Your task to perform on an android device: turn off data saver in the chrome app Image 0: 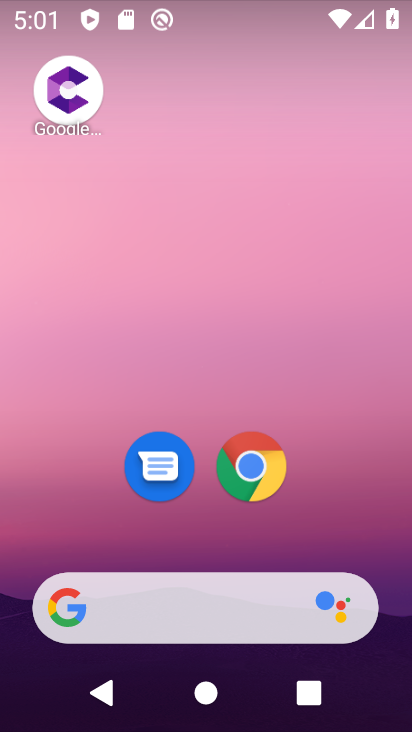
Step 0: click (251, 465)
Your task to perform on an android device: turn off data saver in the chrome app Image 1: 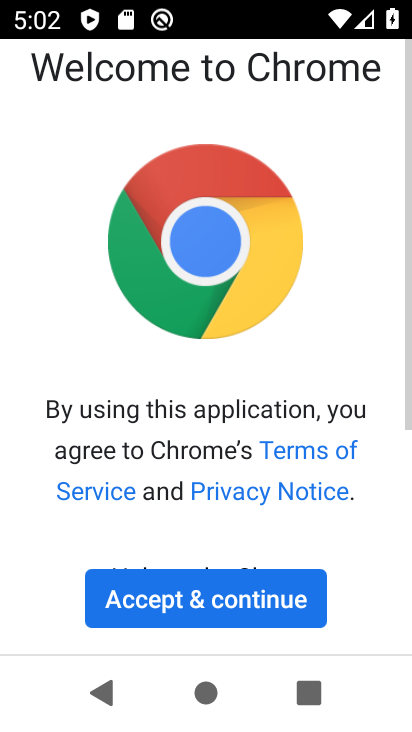
Step 1: click (218, 603)
Your task to perform on an android device: turn off data saver in the chrome app Image 2: 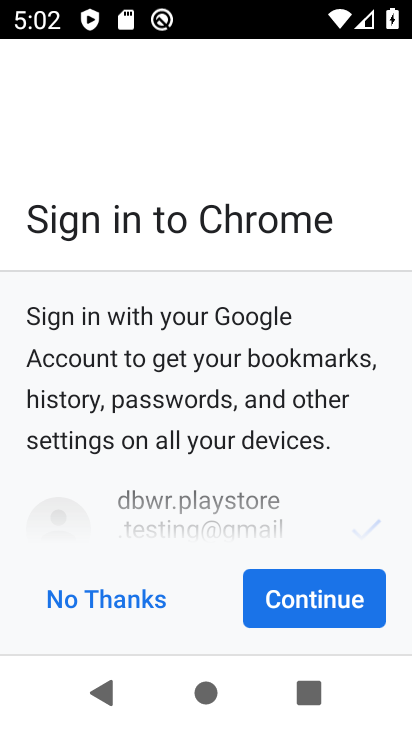
Step 2: click (298, 609)
Your task to perform on an android device: turn off data saver in the chrome app Image 3: 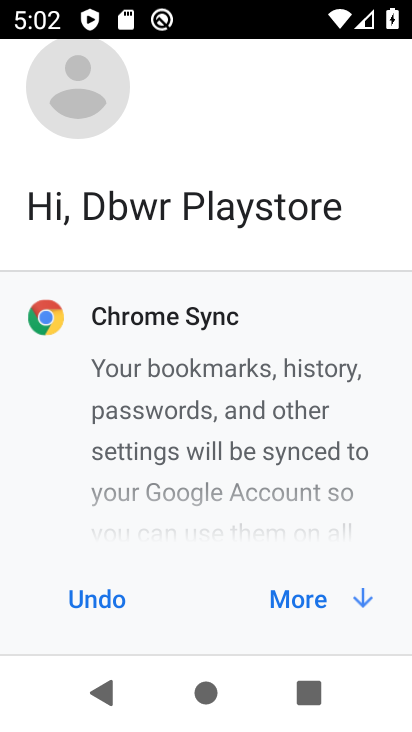
Step 3: click (312, 598)
Your task to perform on an android device: turn off data saver in the chrome app Image 4: 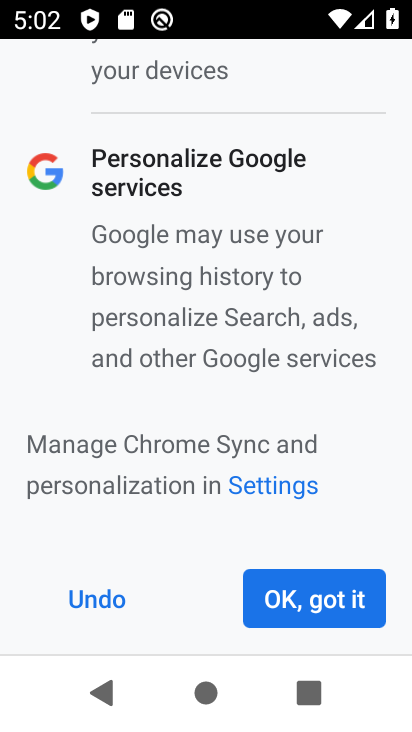
Step 4: click (312, 598)
Your task to perform on an android device: turn off data saver in the chrome app Image 5: 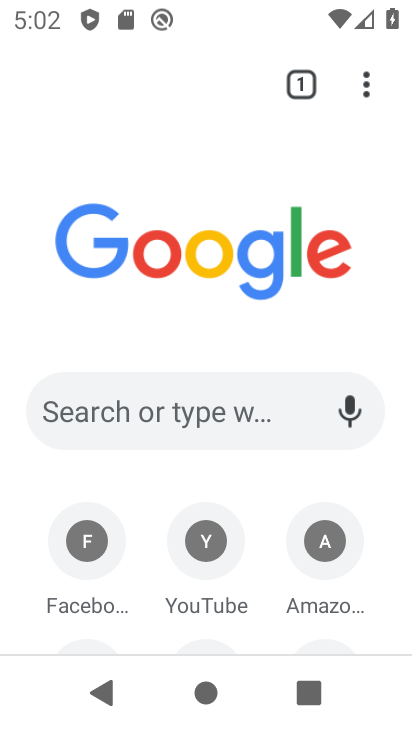
Step 5: click (183, 402)
Your task to perform on an android device: turn off data saver in the chrome app Image 6: 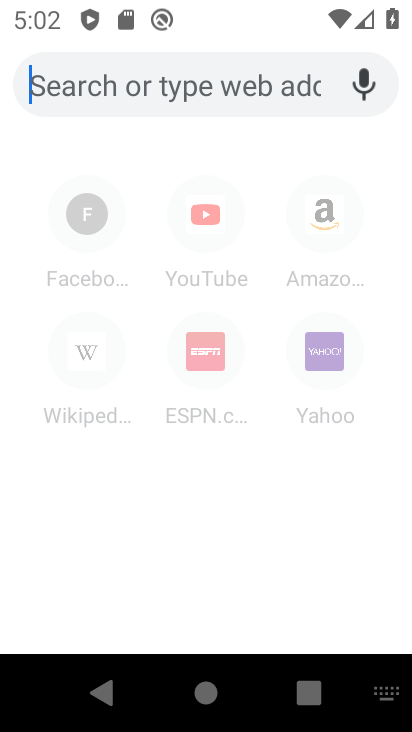
Step 6: press back button
Your task to perform on an android device: turn off data saver in the chrome app Image 7: 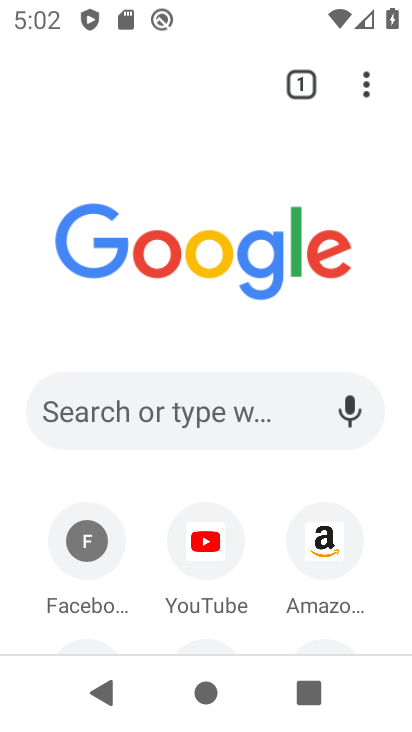
Step 7: click (370, 91)
Your task to perform on an android device: turn off data saver in the chrome app Image 8: 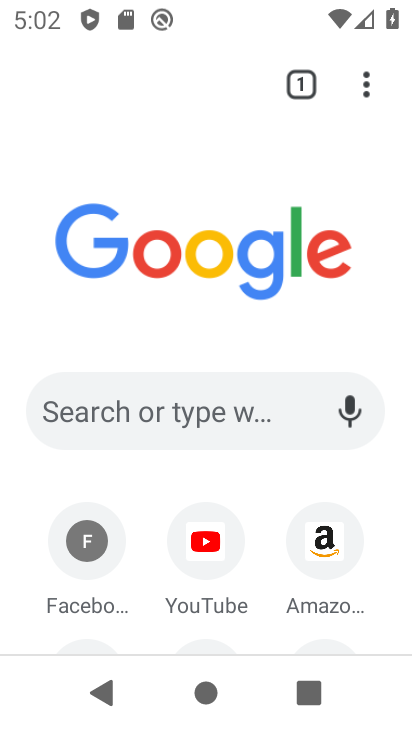
Step 8: drag from (370, 91) to (106, 509)
Your task to perform on an android device: turn off data saver in the chrome app Image 9: 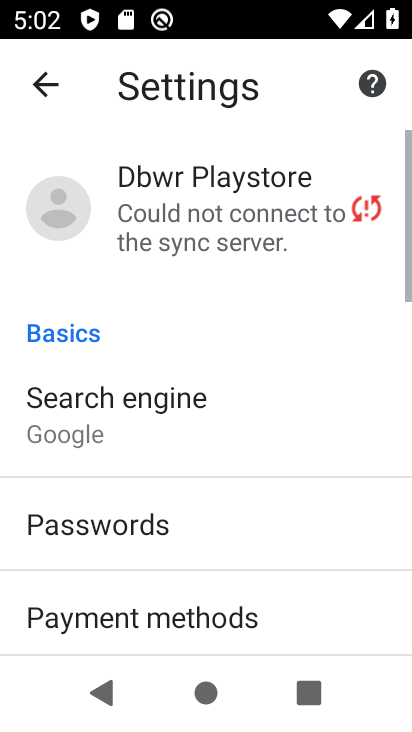
Step 9: drag from (222, 525) to (273, 238)
Your task to perform on an android device: turn off data saver in the chrome app Image 10: 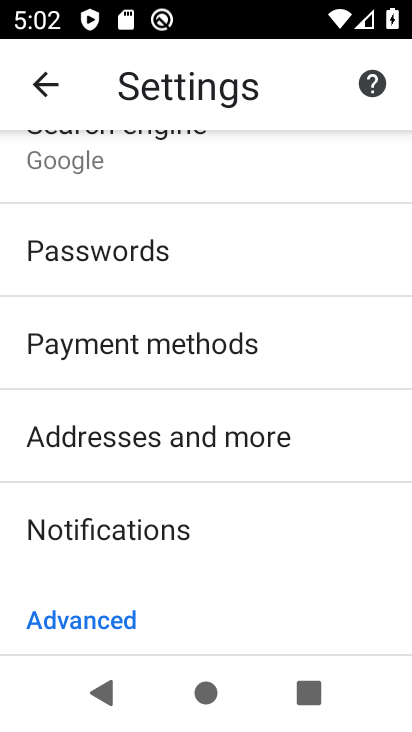
Step 10: drag from (266, 609) to (343, 223)
Your task to perform on an android device: turn off data saver in the chrome app Image 11: 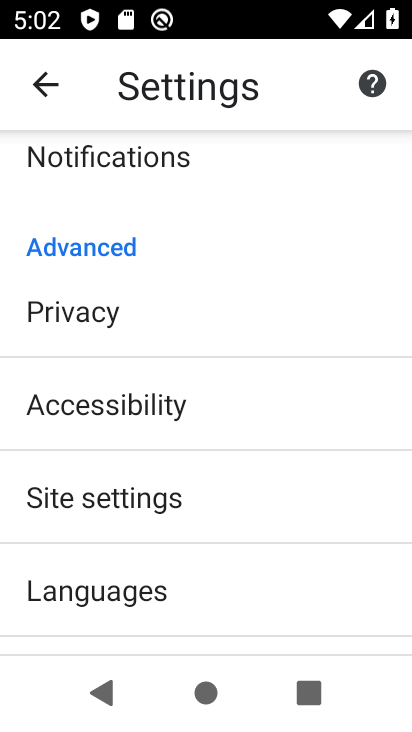
Step 11: drag from (202, 571) to (241, 266)
Your task to perform on an android device: turn off data saver in the chrome app Image 12: 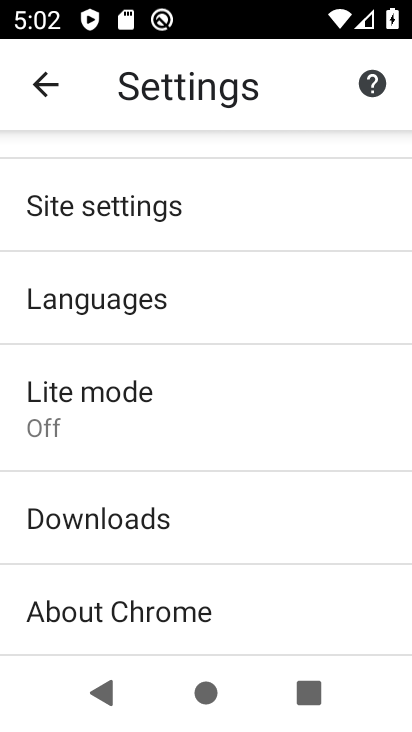
Step 12: click (91, 387)
Your task to perform on an android device: turn off data saver in the chrome app Image 13: 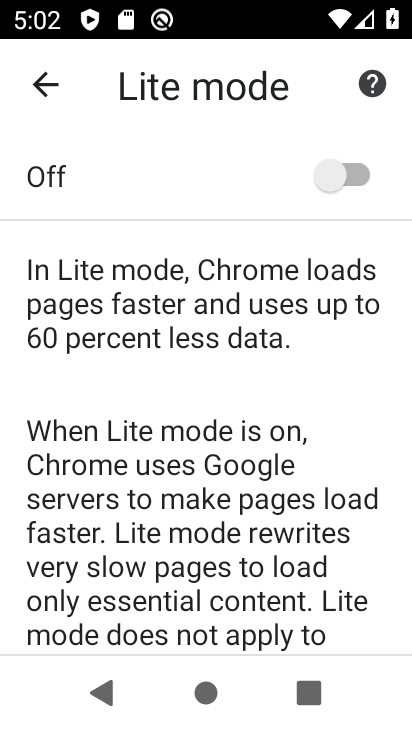
Step 13: task complete